Your task to perform on an android device: Open the downloads Image 0: 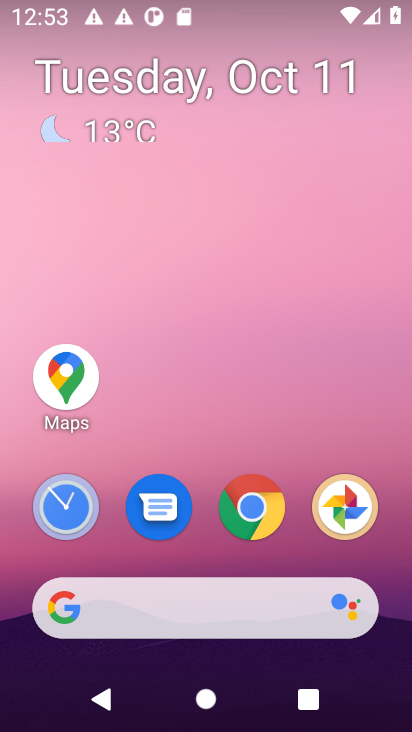
Step 0: drag from (162, 594) to (235, 124)
Your task to perform on an android device: Open the downloads Image 1: 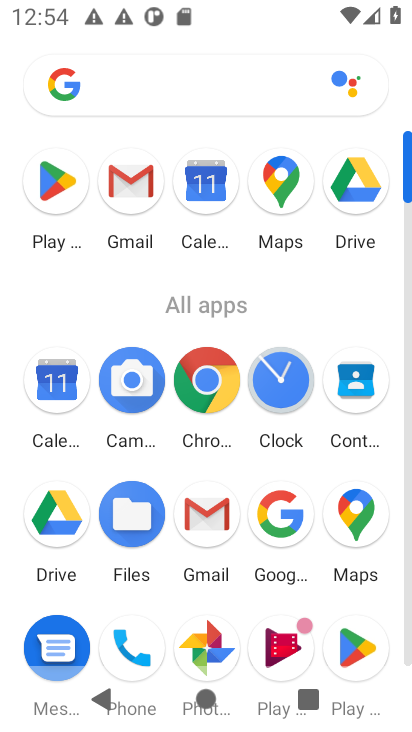
Step 1: task complete